Your task to perform on an android device: Open settings on Google Maps Image 0: 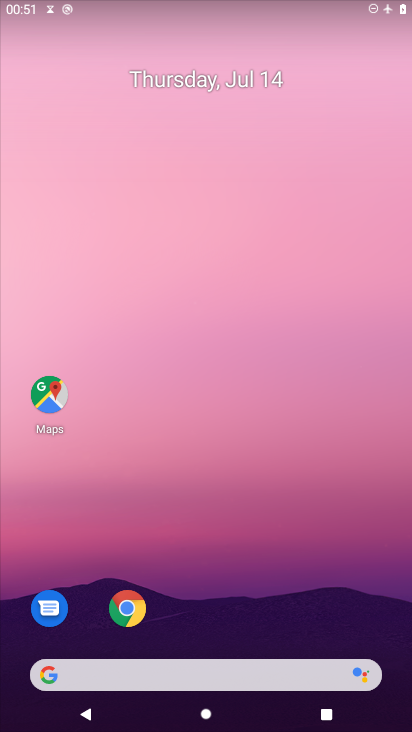
Step 0: press home button
Your task to perform on an android device: Open settings on Google Maps Image 1: 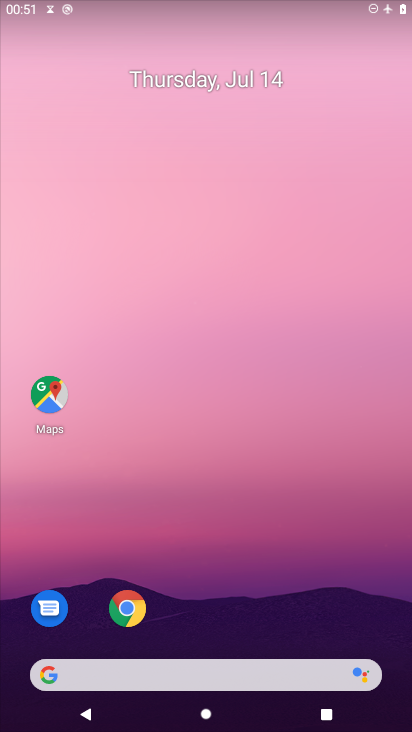
Step 1: drag from (355, 611) to (292, 14)
Your task to perform on an android device: Open settings on Google Maps Image 2: 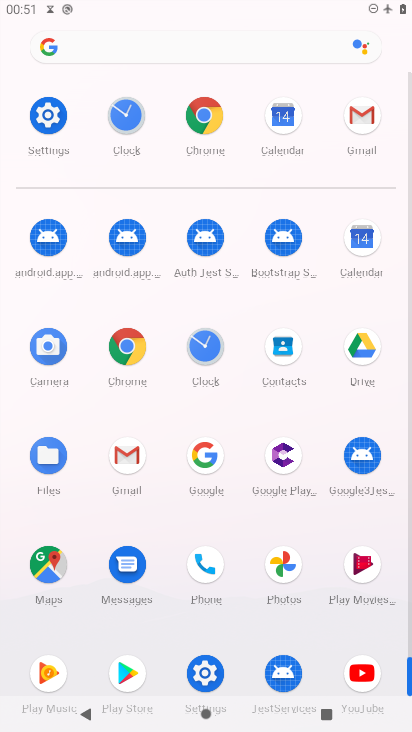
Step 2: click (58, 562)
Your task to perform on an android device: Open settings on Google Maps Image 3: 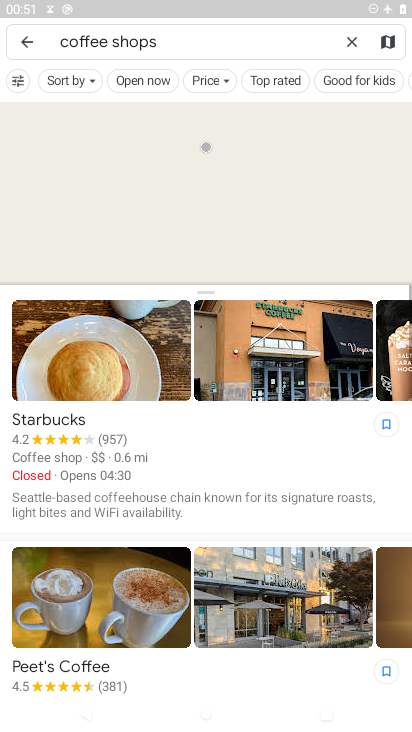
Step 3: click (21, 40)
Your task to perform on an android device: Open settings on Google Maps Image 4: 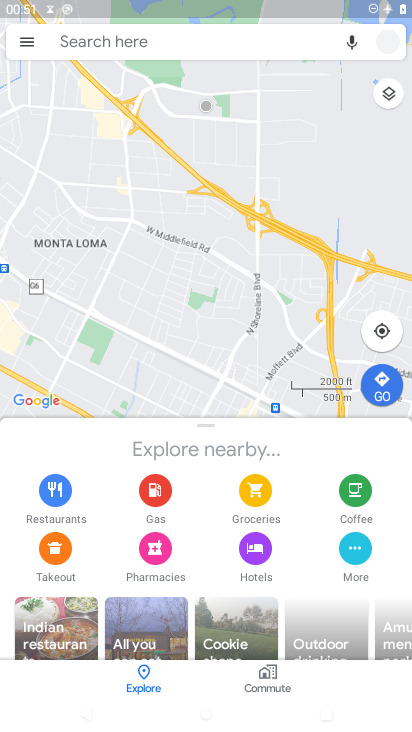
Step 4: click (29, 39)
Your task to perform on an android device: Open settings on Google Maps Image 5: 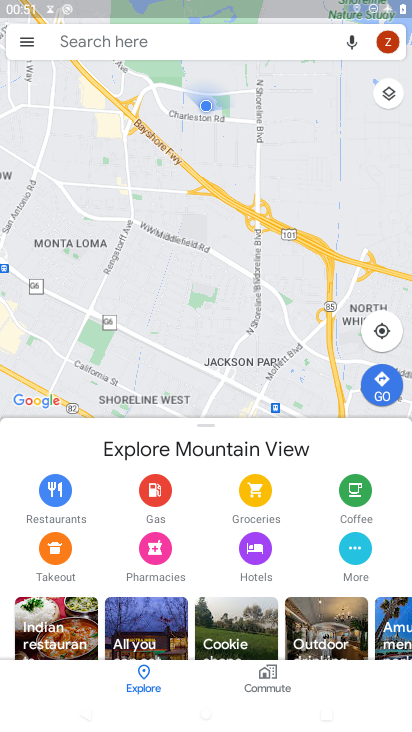
Step 5: click (21, 44)
Your task to perform on an android device: Open settings on Google Maps Image 6: 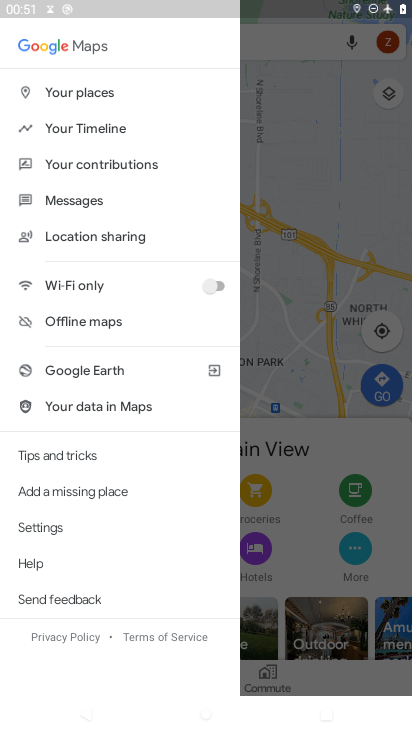
Step 6: click (50, 524)
Your task to perform on an android device: Open settings on Google Maps Image 7: 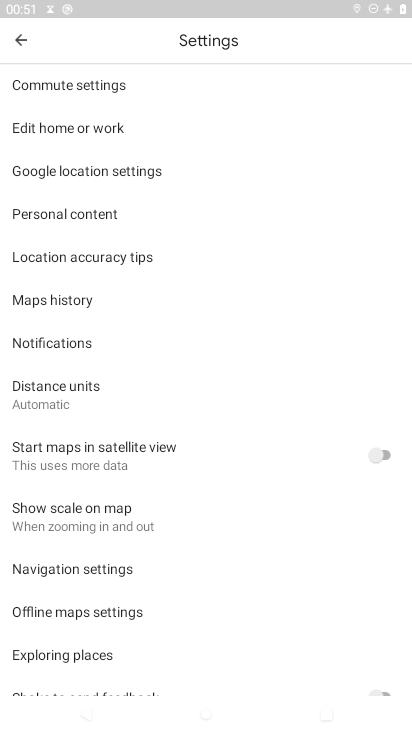
Step 7: task complete